Your task to perform on an android device: Add apple airpods to the cart on amazon.com, then select checkout. Image 0: 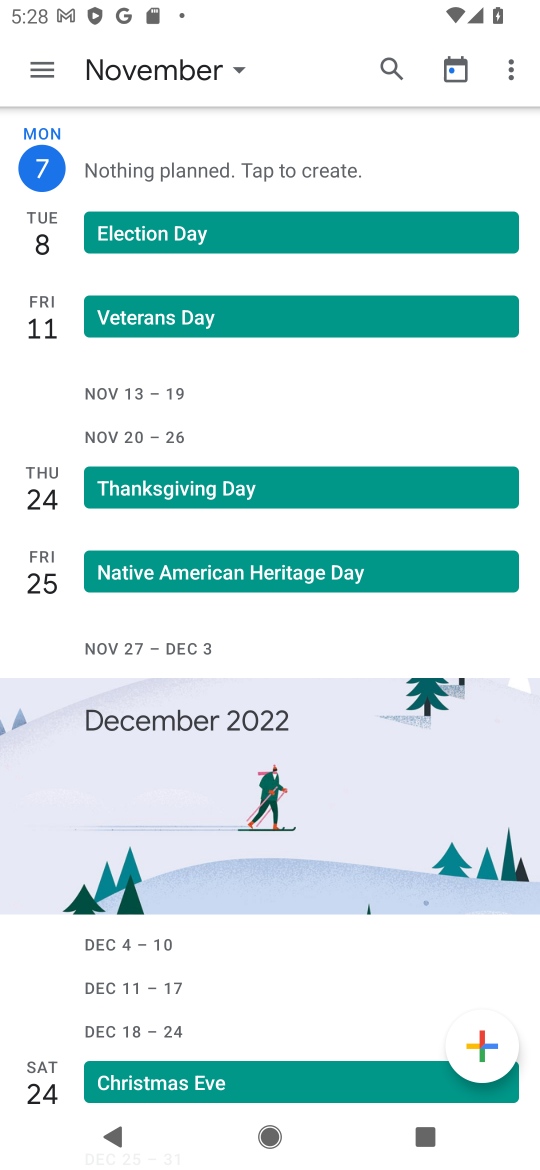
Step 0: press home button
Your task to perform on an android device: Add apple airpods to the cart on amazon.com, then select checkout. Image 1: 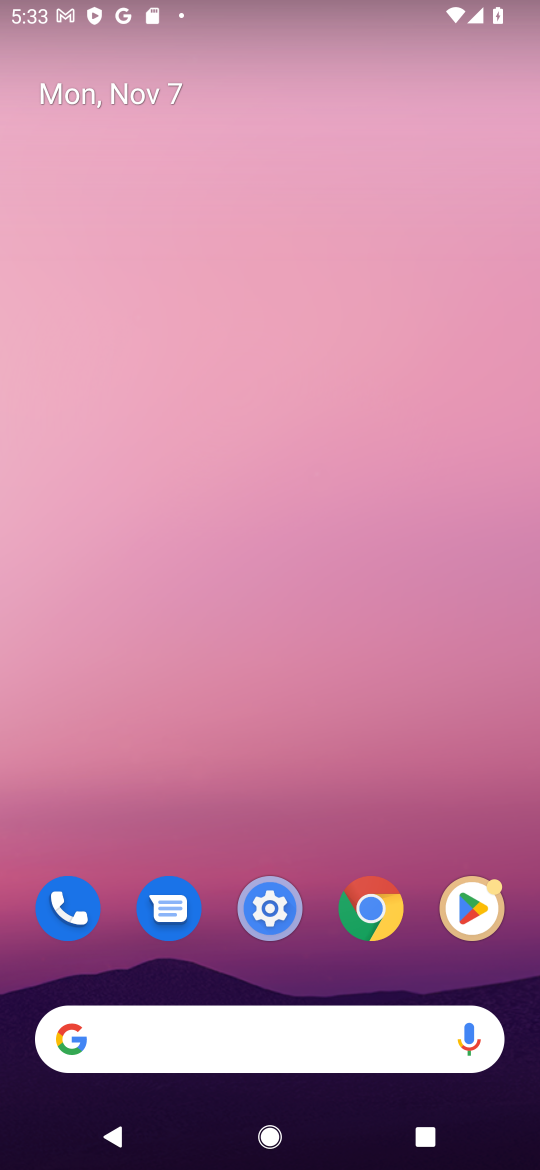
Step 1: task complete